Your task to perform on an android device: Open Amazon Image 0: 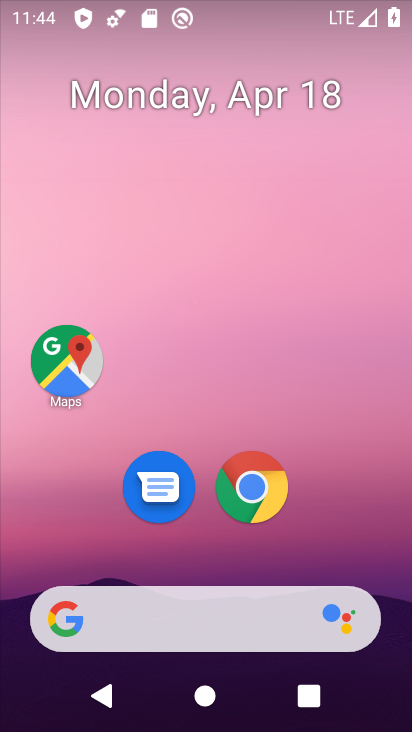
Step 0: click (253, 492)
Your task to perform on an android device: Open Amazon Image 1: 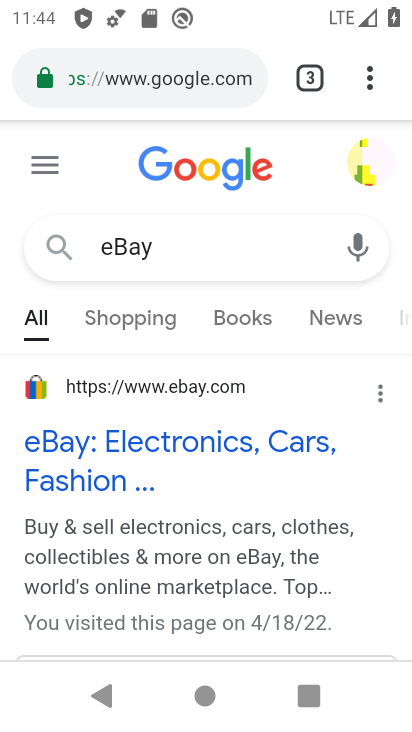
Step 1: click (366, 77)
Your task to perform on an android device: Open Amazon Image 2: 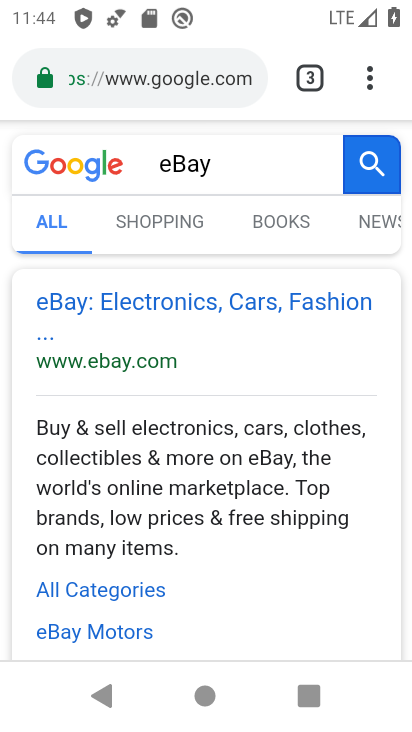
Step 2: click (368, 75)
Your task to perform on an android device: Open Amazon Image 3: 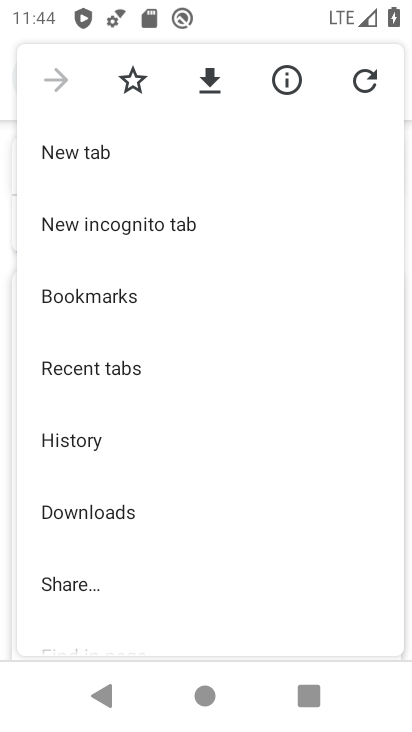
Step 3: click (91, 153)
Your task to perform on an android device: Open Amazon Image 4: 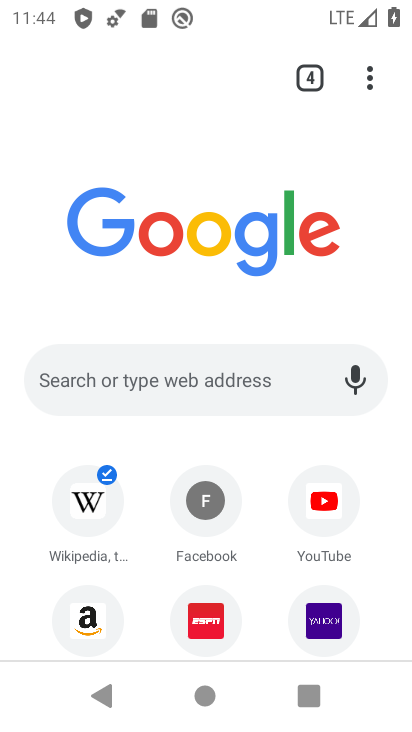
Step 4: click (81, 625)
Your task to perform on an android device: Open Amazon Image 5: 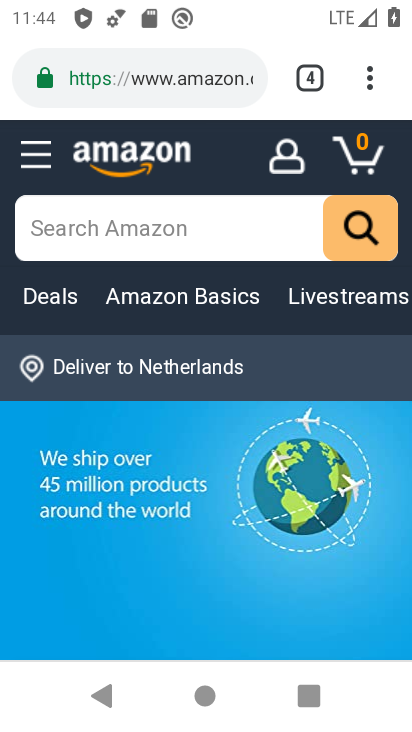
Step 5: task complete